Your task to perform on an android device: Go to privacy settings Image 0: 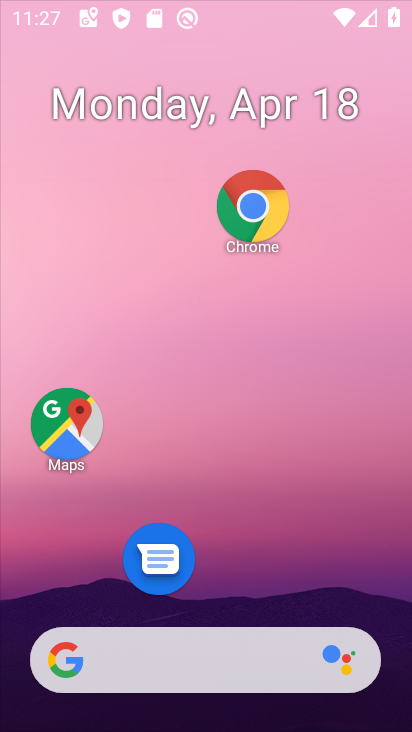
Step 0: click (410, 186)
Your task to perform on an android device: Go to privacy settings Image 1: 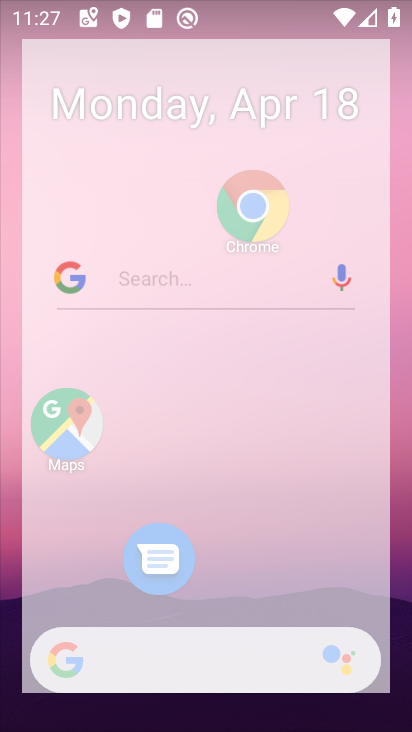
Step 1: drag from (269, 441) to (200, 132)
Your task to perform on an android device: Go to privacy settings Image 2: 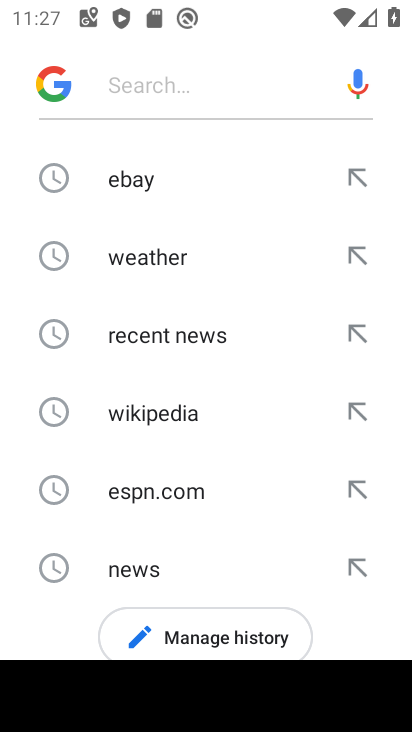
Step 2: press home button
Your task to perform on an android device: Go to privacy settings Image 3: 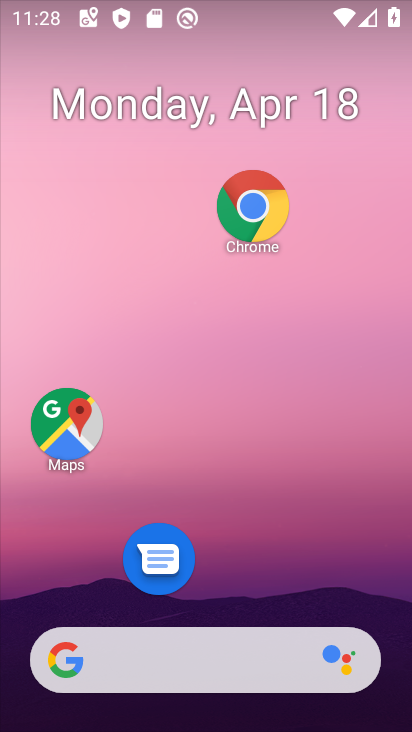
Step 3: drag from (204, 556) to (273, 278)
Your task to perform on an android device: Go to privacy settings Image 4: 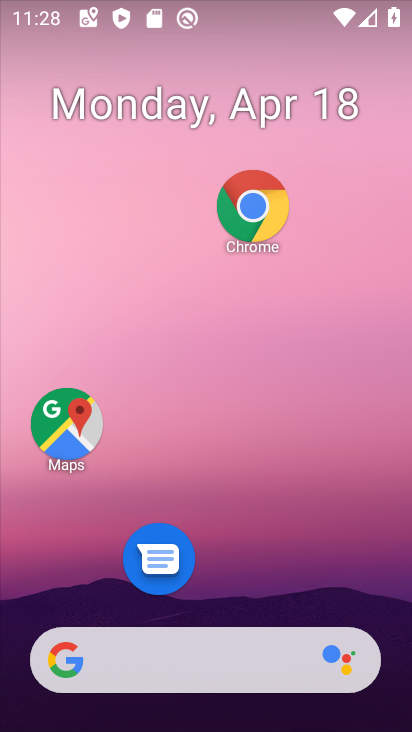
Step 4: drag from (241, 549) to (247, 202)
Your task to perform on an android device: Go to privacy settings Image 5: 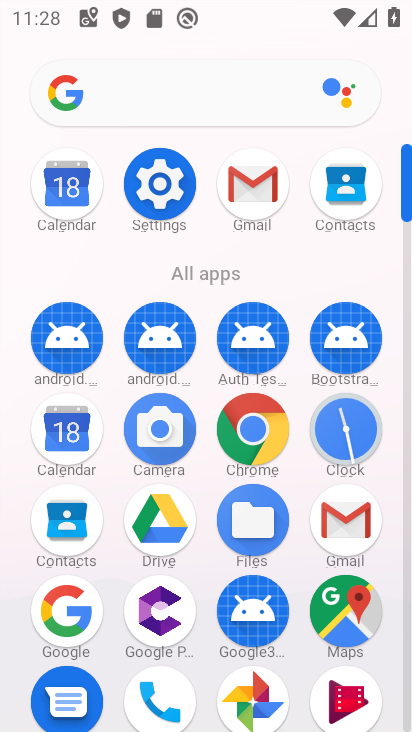
Step 5: click (243, 427)
Your task to perform on an android device: Go to privacy settings Image 6: 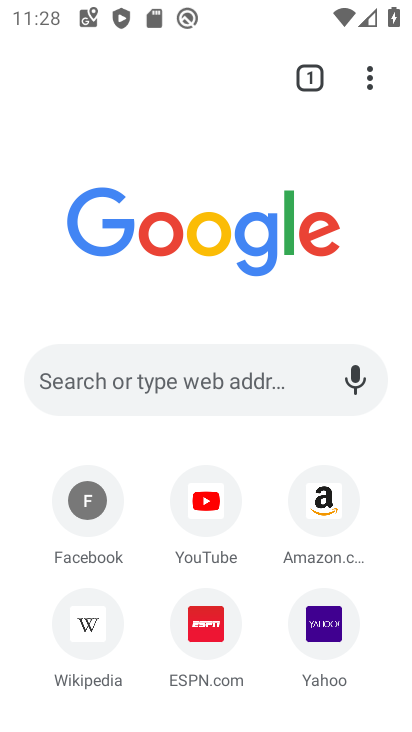
Step 6: click (375, 84)
Your task to perform on an android device: Go to privacy settings Image 7: 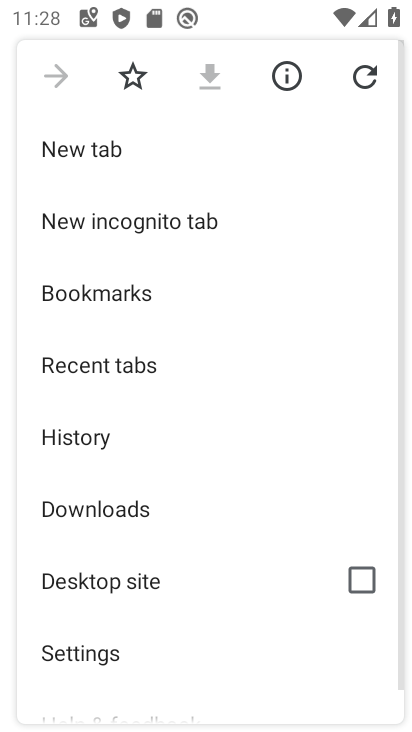
Step 7: drag from (181, 638) to (289, 140)
Your task to perform on an android device: Go to privacy settings Image 8: 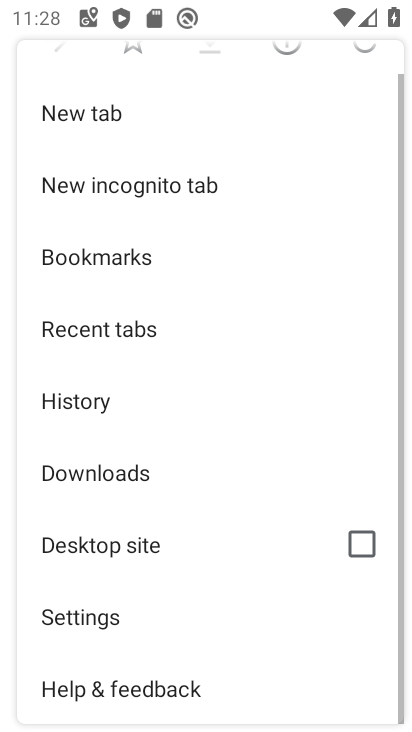
Step 8: click (221, 635)
Your task to perform on an android device: Go to privacy settings Image 9: 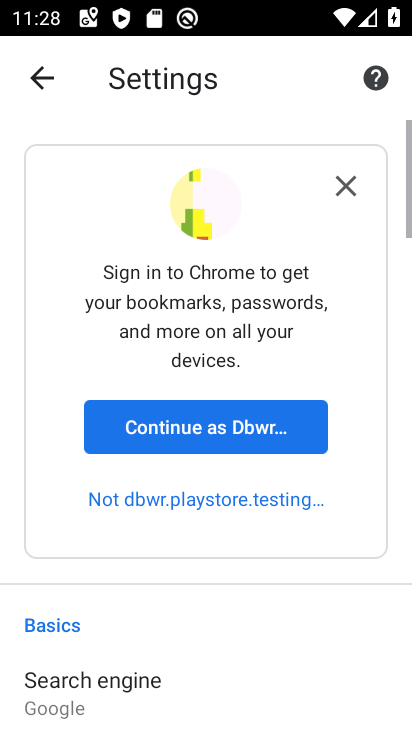
Step 9: drag from (186, 646) to (266, 255)
Your task to perform on an android device: Go to privacy settings Image 10: 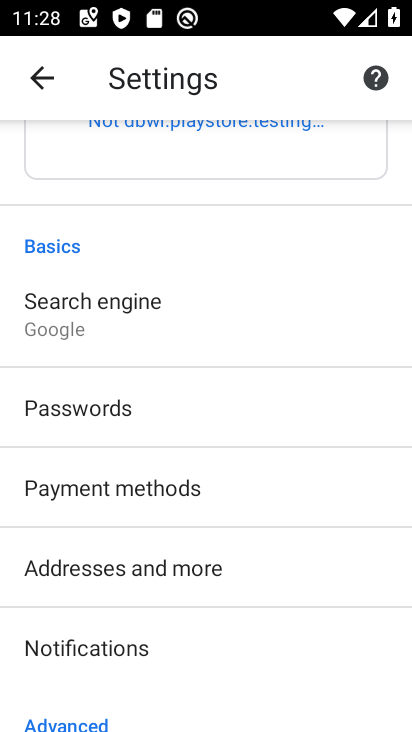
Step 10: drag from (122, 698) to (185, 377)
Your task to perform on an android device: Go to privacy settings Image 11: 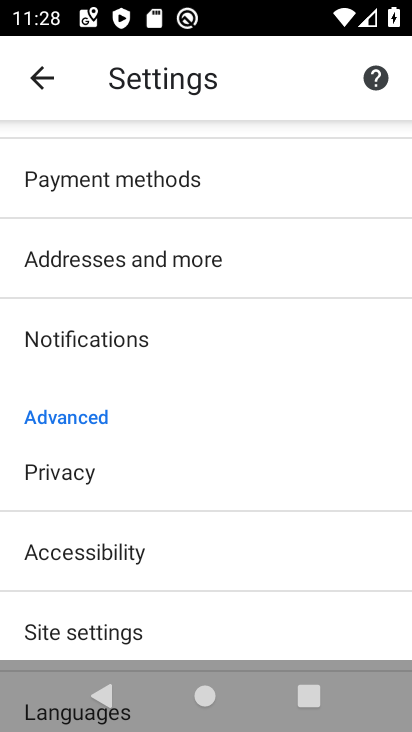
Step 11: click (112, 490)
Your task to perform on an android device: Go to privacy settings Image 12: 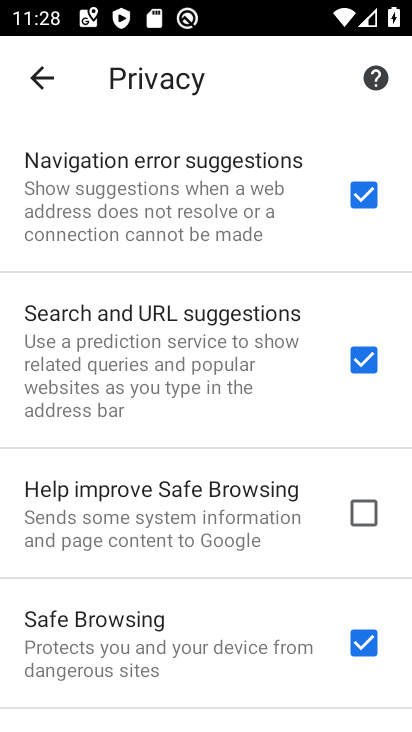
Step 12: task complete